Your task to perform on an android device: Search for vegetarian restaurants on Maps Image 0: 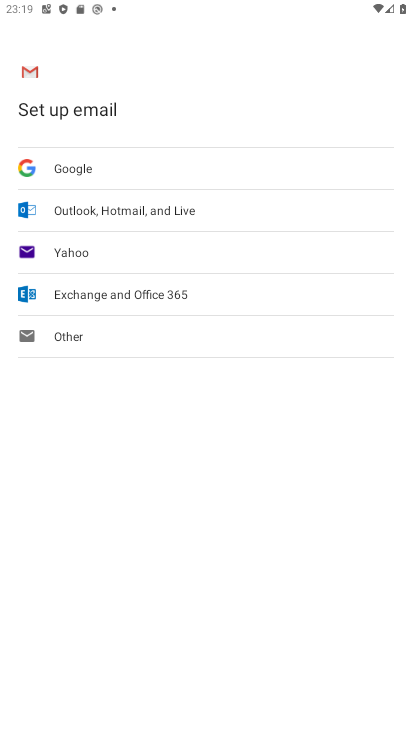
Step 0: press home button
Your task to perform on an android device: Search for vegetarian restaurants on Maps Image 1: 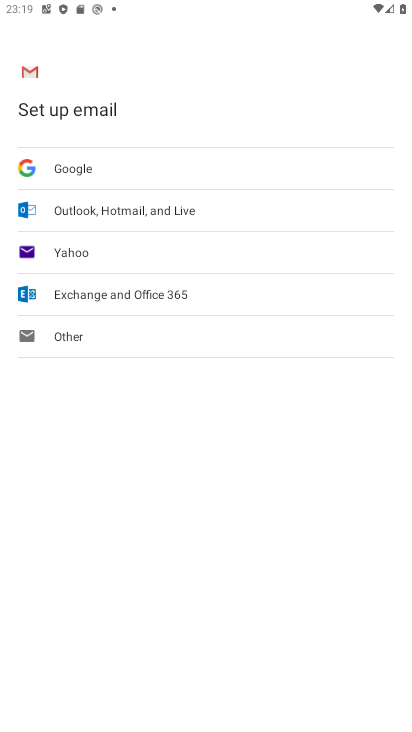
Step 1: press home button
Your task to perform on an android device: Search for vegetarian restaurants on Maps Image 2: 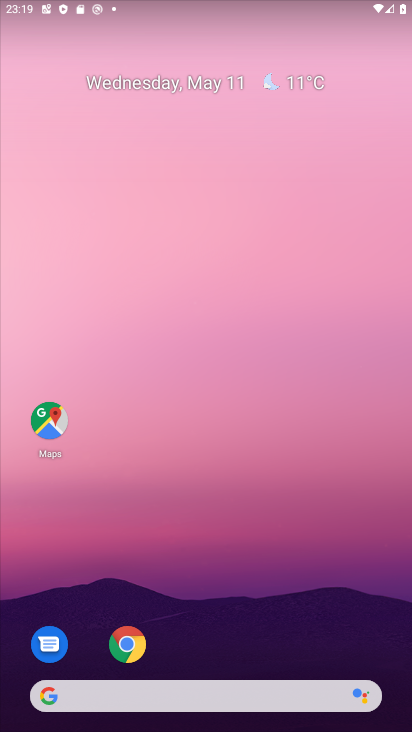
Step 2: click (49, 420)
Your task to perform on an android device: Search for vegetarian restaurants on Maps Image 3: 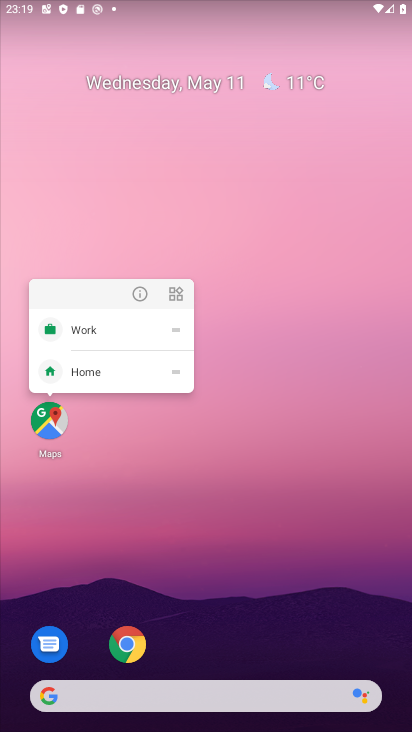
Step 3: click (52, 416)
Your task to perform on an android device: Search for vegetarian restaurants on Maps Image 4: 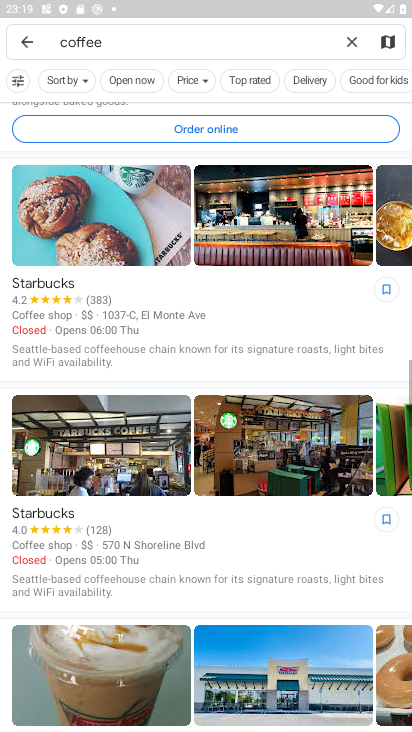
Step 4: click (351, 40)
Your task to perform on an android device: Search for vegetarian restaurants on Maps Image 5: 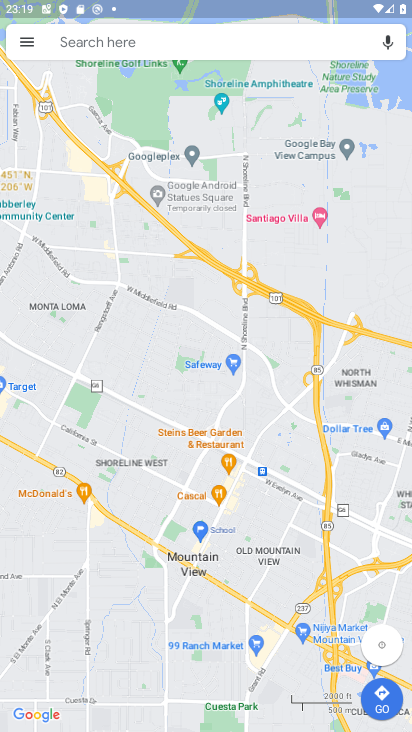
Step 5: click (111, 42)
Your task to perform on an android device: Search for vegetarian restaurants on Maps Image 6: 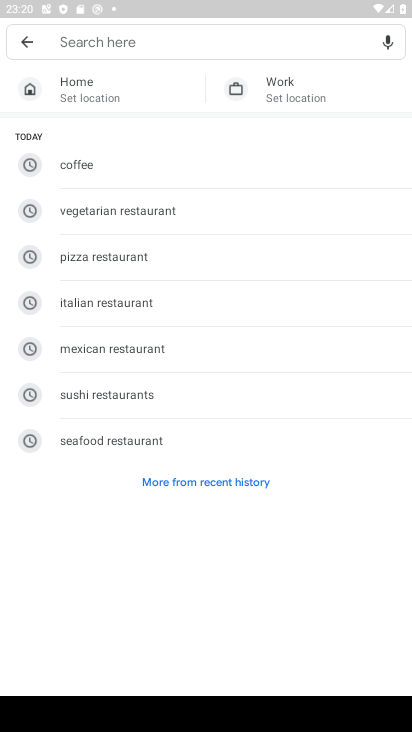
Step 6: click (169, 210)
Your task to perform on an android device: Search for vegetarian restaurants on Maps Image 7: 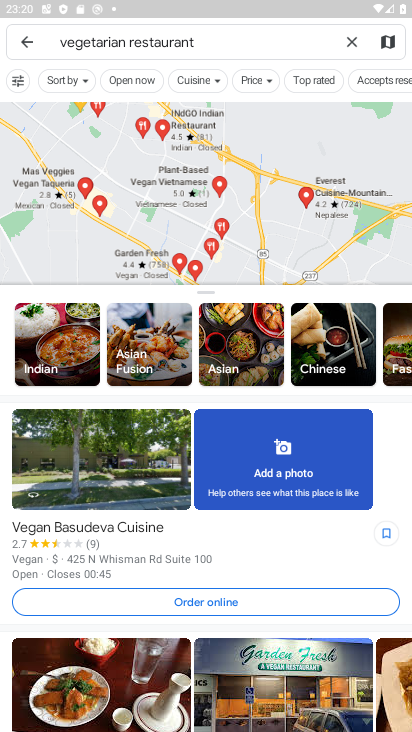
Step 7: task complete